Your task to perform on an android device: turn off sleep mode Image 0: 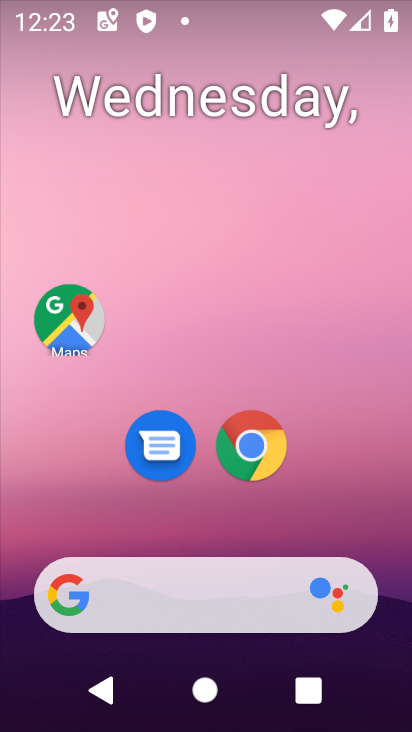
Step 0: drag from (344, 449) to (316, 52)
Your task to perform on an android device: turn off sleep mode Image 1: 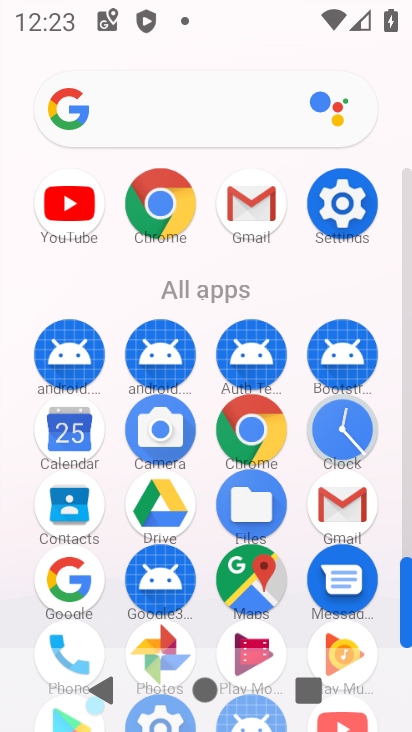
Step 1: click (327, 202)
Your task to perform on an android device: turn off sleep mode Image 2: 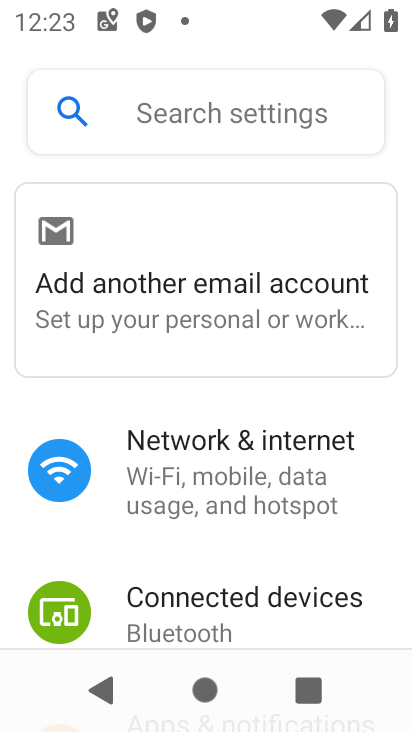
Step 2: drag from (218, 432) to (259, 102)
Your task to perform on an android device: turn off sleep mode Image 3: 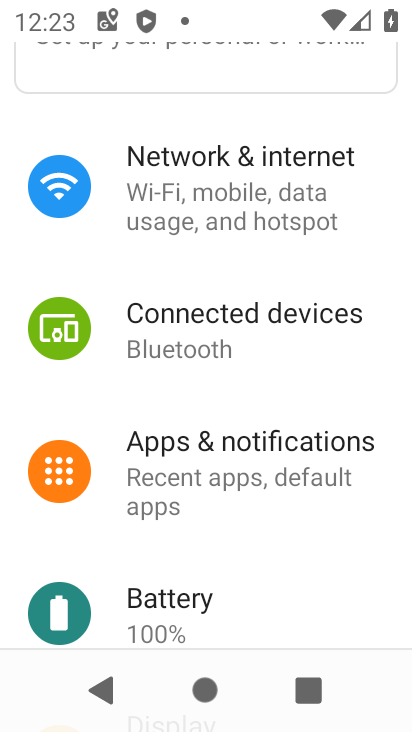
Step 3: drag from (191, 555) to (295, 190)
Your task to perform on an android device: turn off sleep mode Image 4: 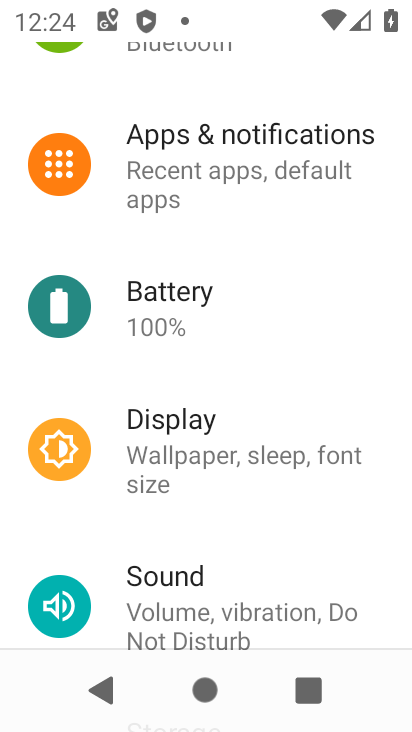
Step 4: click (229, 438)
Your task to perform on an android device: turn off sleep mode Image 5: 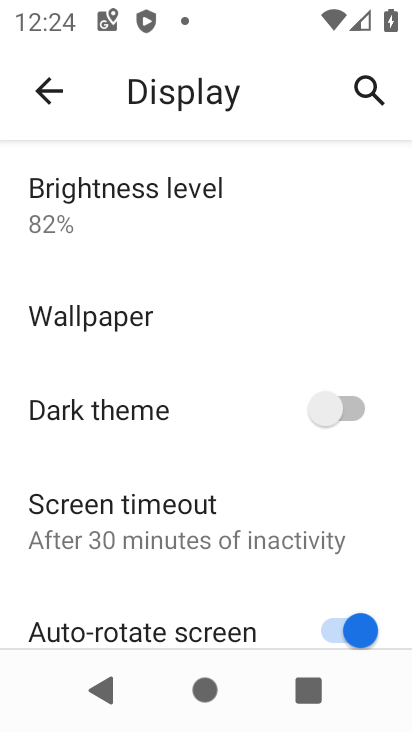
Step 5: click (162, 524)
Your task to perform on an android device: turn off sleep mode Image 6: 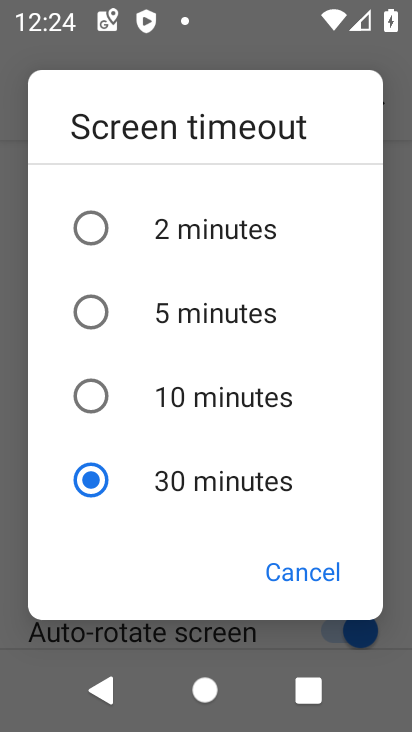
Step 6: task complete